Your task to perform on an android device: turn on the 12-hour format for clock Image 0: 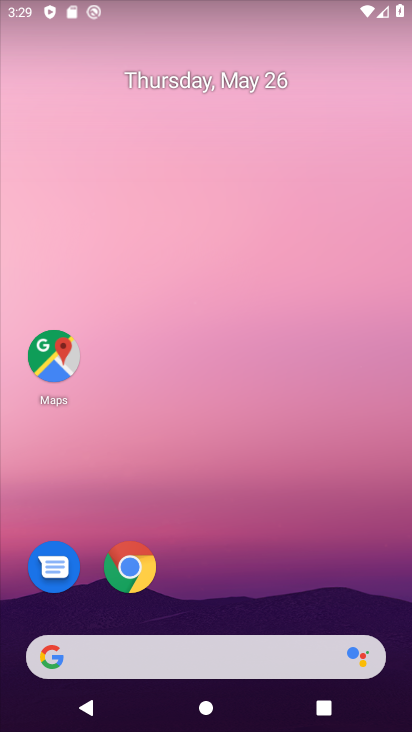
Step 0: click (141, 573)
Your task to perform on an android device: turn on the 12-hour format for clock Image 1: 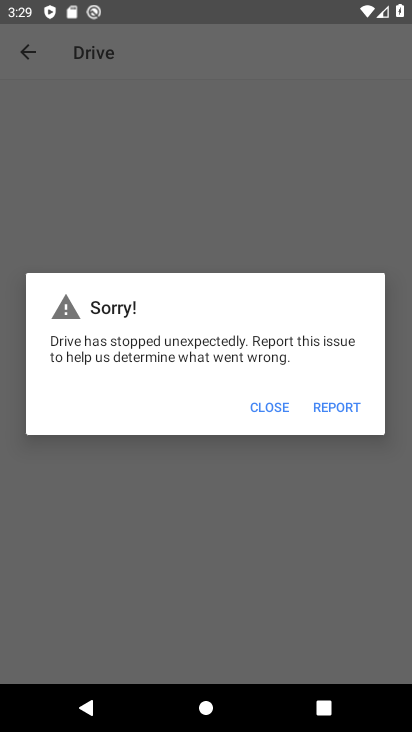
Step 1: press home button
Your task to perform on an android device: turn on the 12-hour format for clock Image 2: 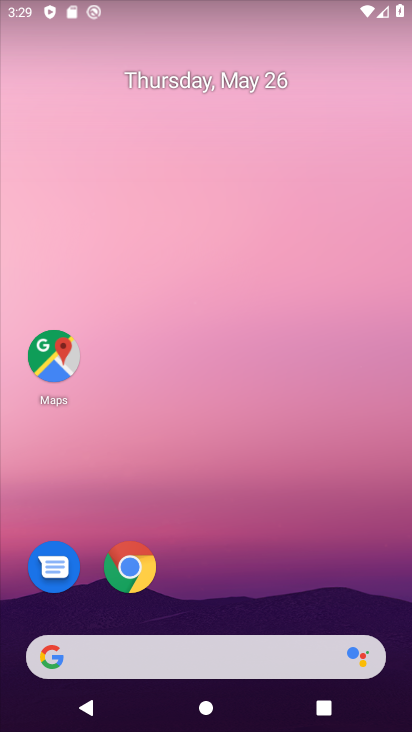
Step 2: drag from (215, 622) to (302, 155)
Your task to perform on an android device: turn on the 12-hour format for clock Image 3: 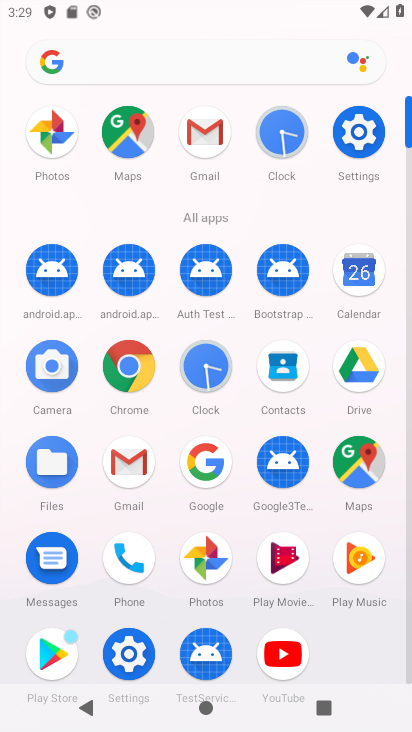
Step 3: click (217, 381)
Your task to perform on an android device: turn on the 12-hour format for clock Image 4: 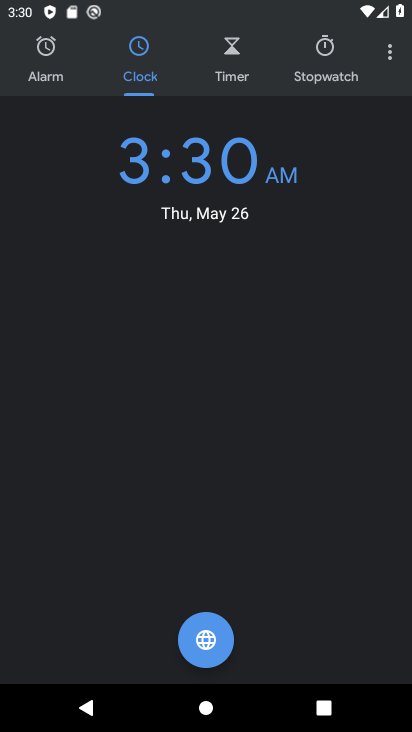
Step 4: click (377, 62)
Your task to perform on an android device: turn on the 12-hour format for clock Image 5: 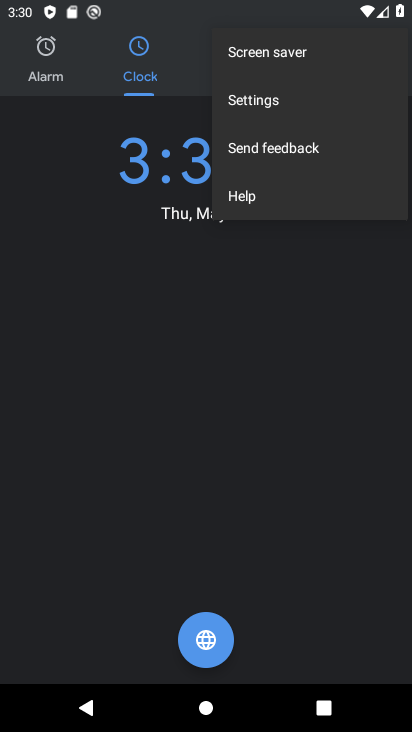
Step 5: click (353, 106)
Your task to perform on an android device: turn on the 12-hour format for clock Image 6: 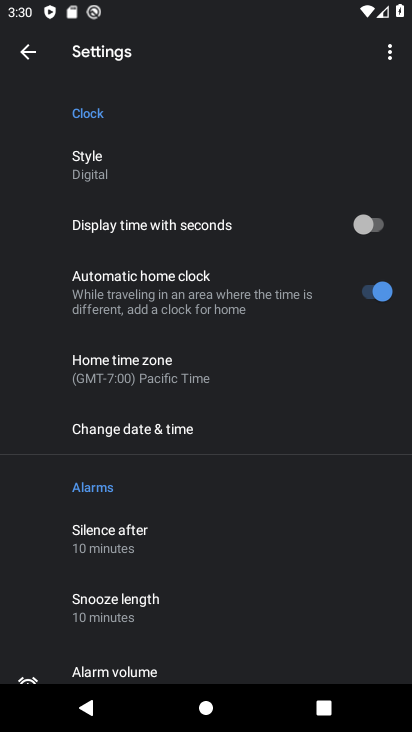
Step 6: click (211, 433)
Your task to perform on an android device: turn on the 12-hour format for clock Image 7: 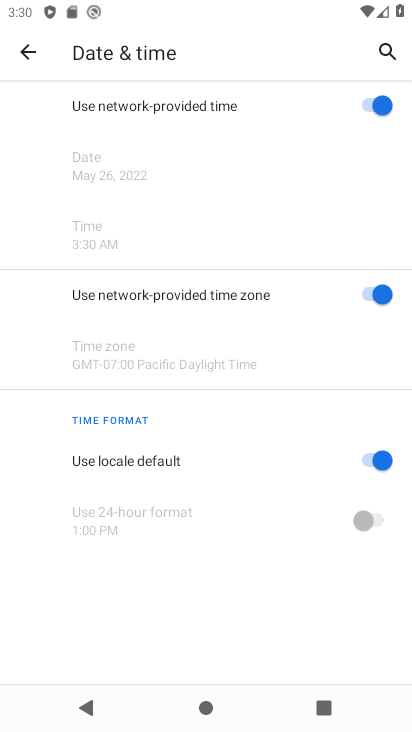
Step 7: task complete